Your task to perform on an android device: Go to Maps Image 0: 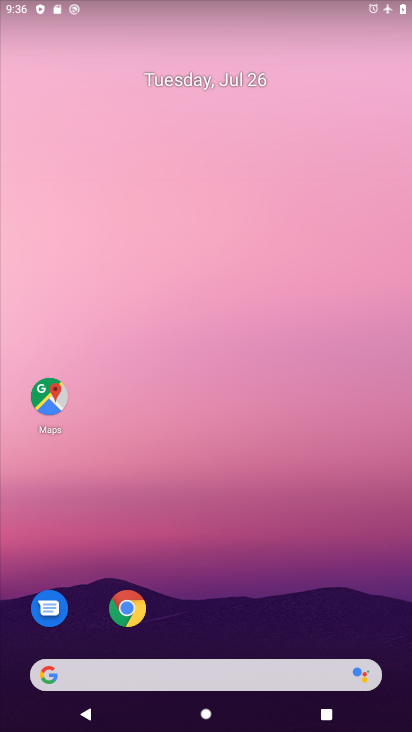
Step 0: click (51, 396)
Your task to perform on an android device: Go to Maps Image 1: 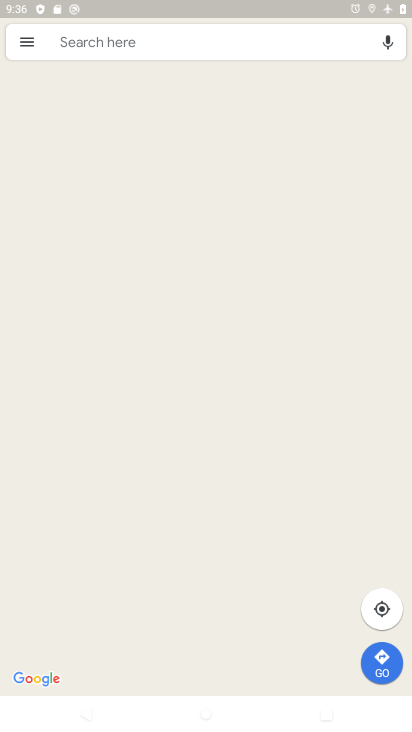
Step 1: task complete